Your task to perform on an android device: allow cookies in the chrome app Image 0: 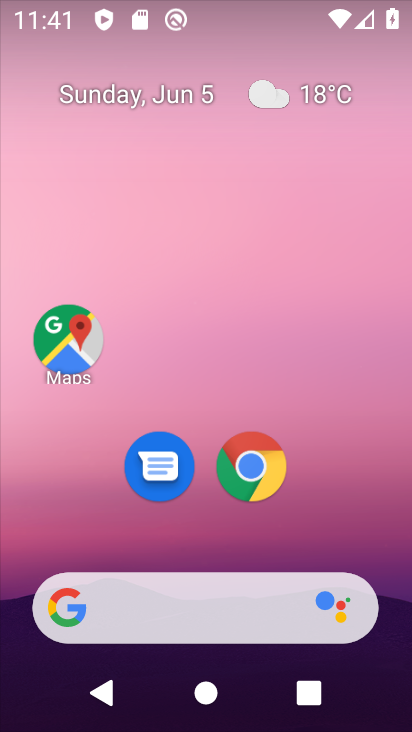
Step 0: drag from (348, 503) to (281, 12)
Your task to perform on an android device: allow cookies in the chrome app Image 1: 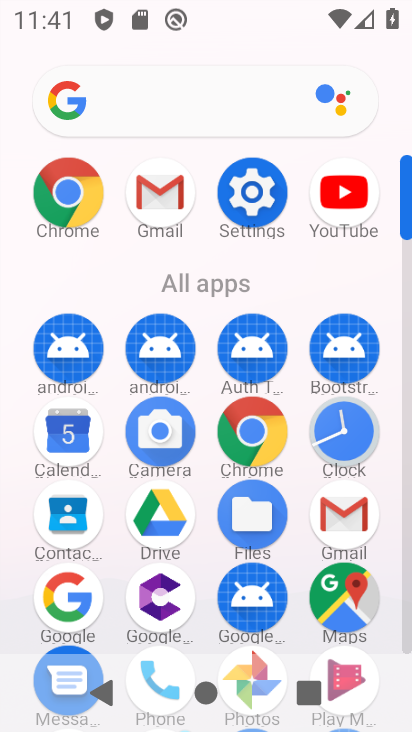
Step 1: drag from (30, 506) to (4, 181)
Your task to perform on an android device: allow cookies in the chrome app Image 2: 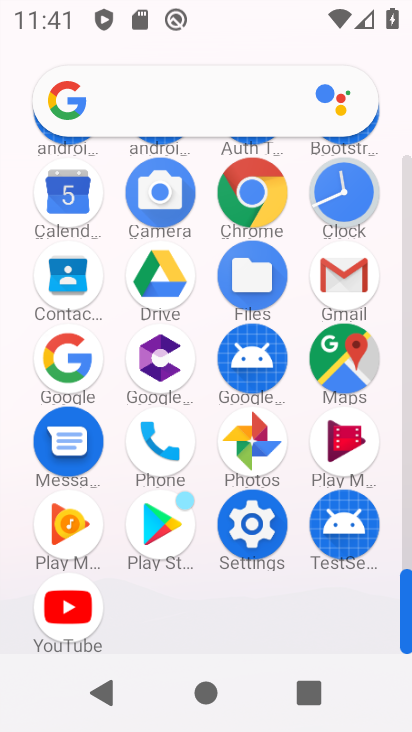
Step 2: click (249, 179)
Your task to perform on an android device: allow cookies in the chrome app Image 3: 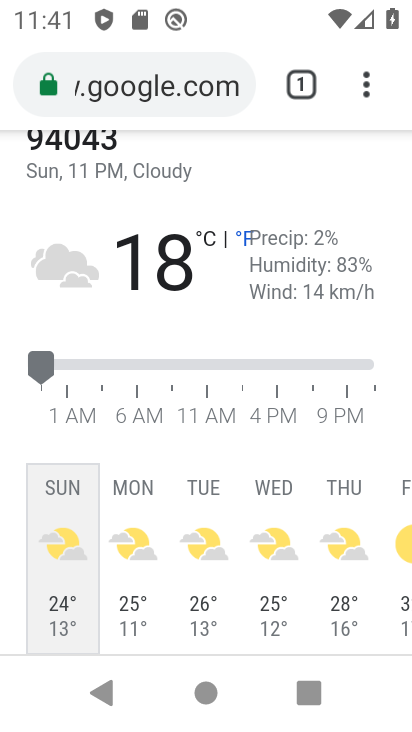
Step 3: drag from (361, 84) to (240, 521)
Your task to perform on an android device: allow cookies in the chrome app Image 4: 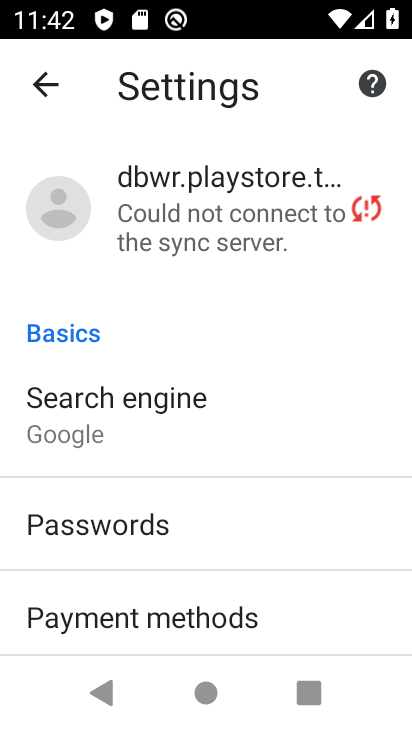
Step 4: drag from (306, 579) to (317, 197)
Your task to perform on an android device: allow cookies in the chrome app Image 5: 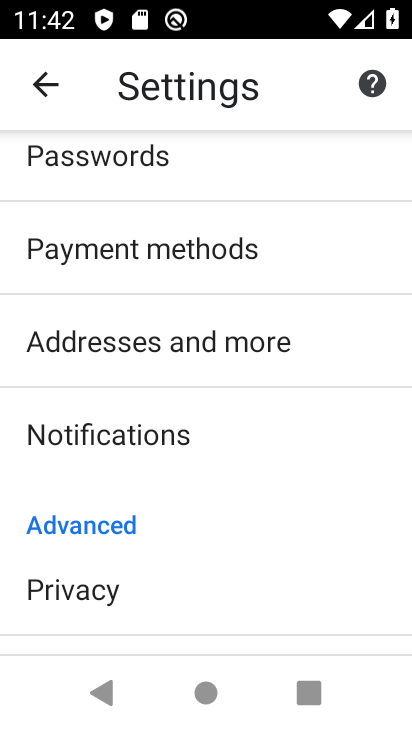
Step 5: drag from (251, 611) to (286, 193)
Your task to perform on an android device: allow cookies in the chrome app Image 6: 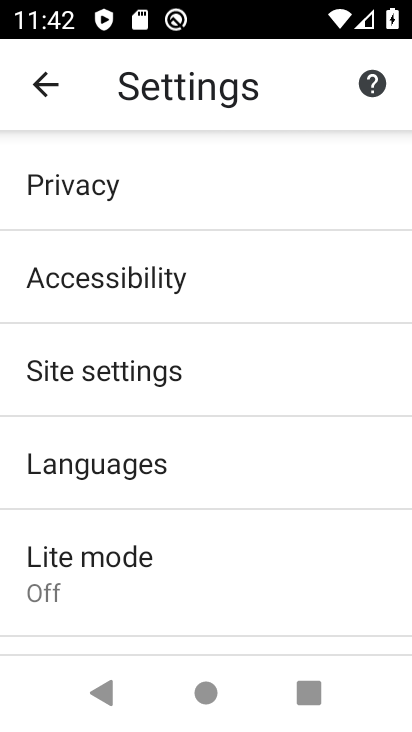
Step 6: drag from (225, 572) to (262, 266)
Your task to perform on an android device: allow cookies in the chrome app Image 7: 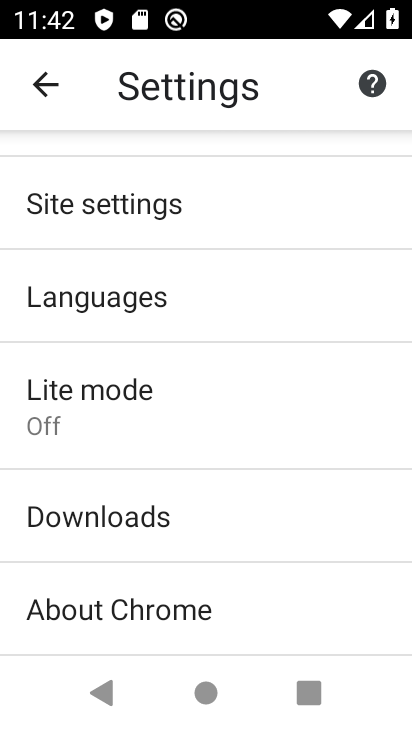
Step 7: drag from (274, 183) to (265, 590)
Your task to perform on an android device: allow cookies in the chrome app Image 8: 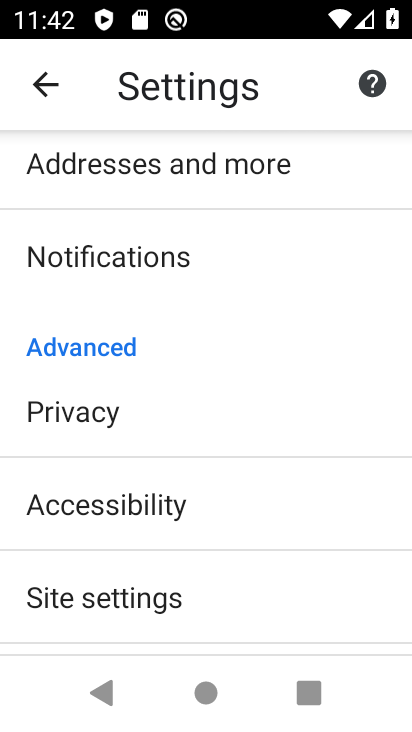
Step 8: drag from (242, 291) to (197, 652)
Your task to perform on an android device: allow cookies in the chrome app Image 9: 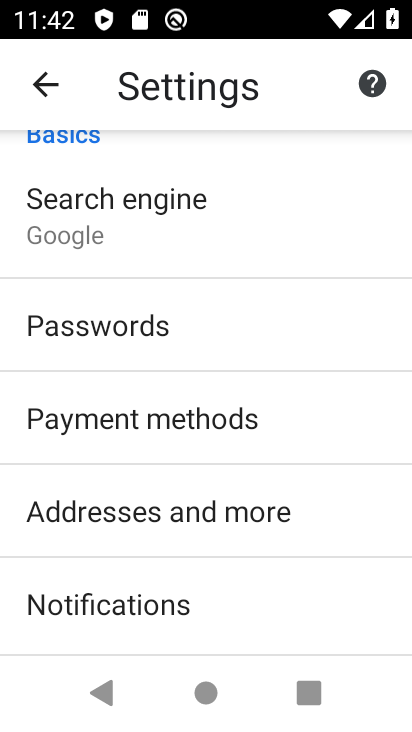
Step 9: drag from (181, 541) to (264, 181)
Your task to perform on an android device: allow cookies in the chrome app Image 10: 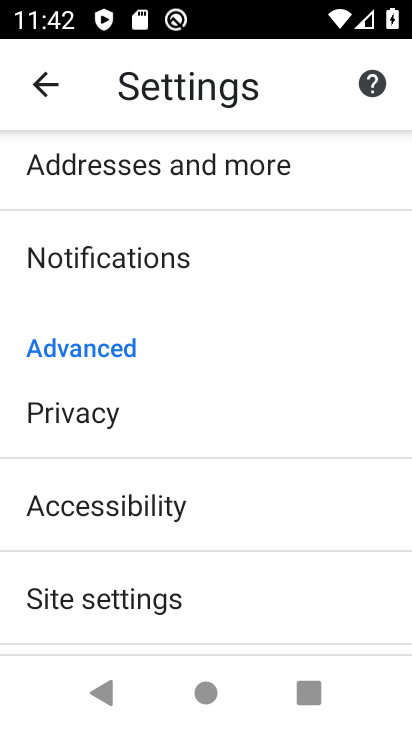
Step 10: drag from (250, 542) to (294, 205)
Your task to perform on an android device: allow cookies in the chrome app Image 11: 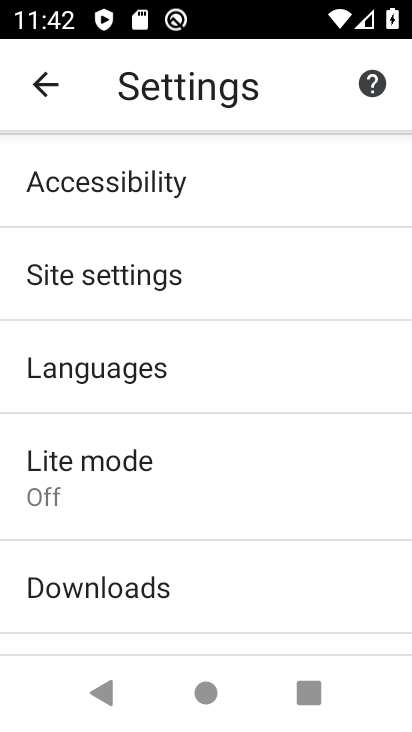
Step 11: click (182, 282)
Your task to perform on an android device: allow cookies in the chrome app Image 12: 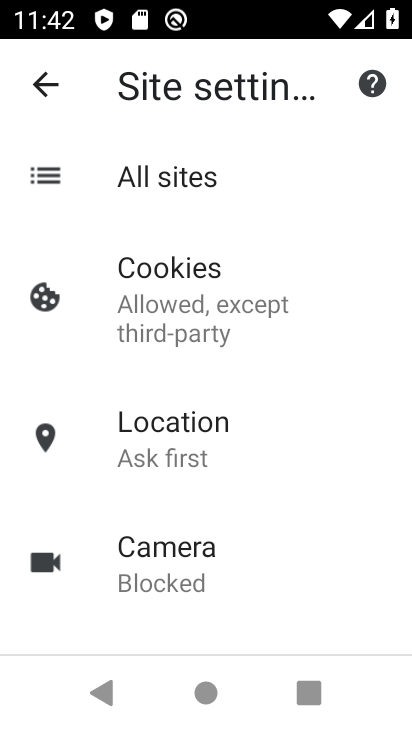
Step 12: task complete